Your task to perform on an android device: Open my contact list Image 0: 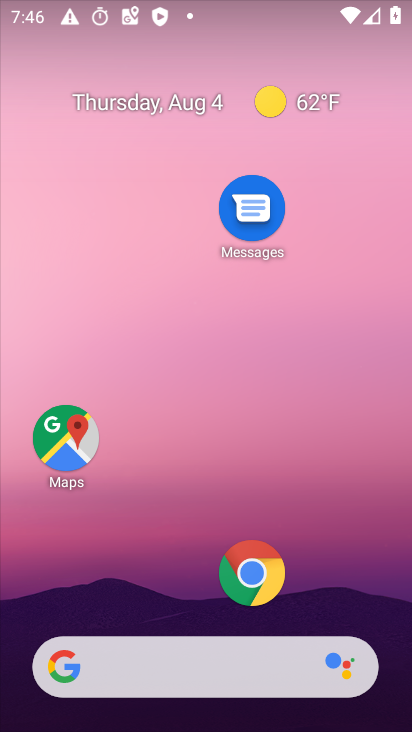
Step 0: press home button
Your task to perform on an android device: Open my contact list Image 1: 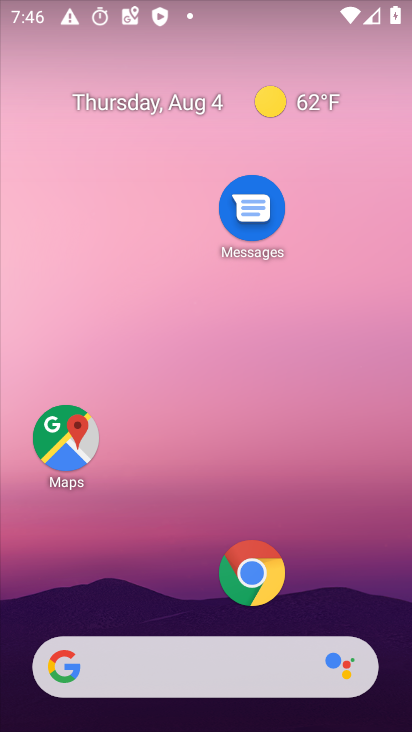
Step 1: drag from (149, 586) to (201, 96)
Your task to perform on an android device: Open my contact list Image 2: 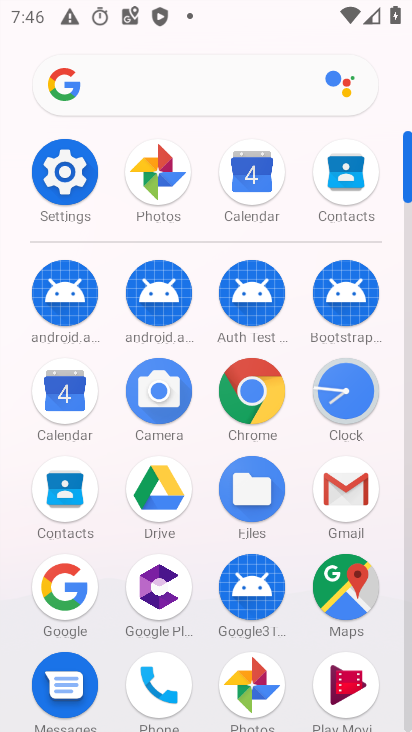
Step 2: click (60, 492)
Your task to perform on an android device: Open my contact list Image 3: 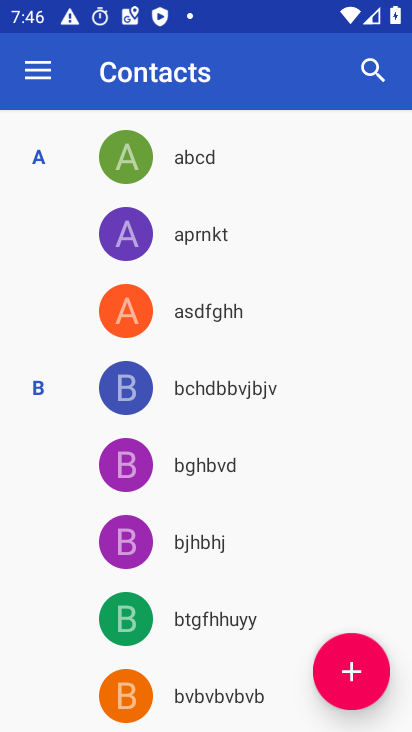
Step 3: task complete